Your task to perform on an android device: turn on showing notifications on the lock screen Image 0: 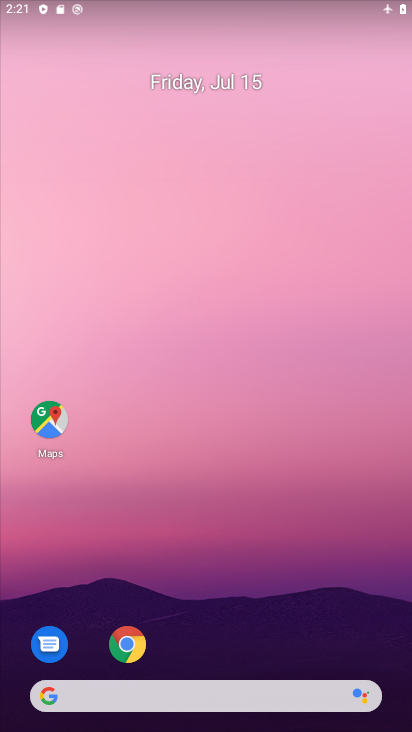
Step 0: drag from (235, 499) to (302, 28)
Your task to perform on an android device: turn on showing notifications on the lock screen Image 1: 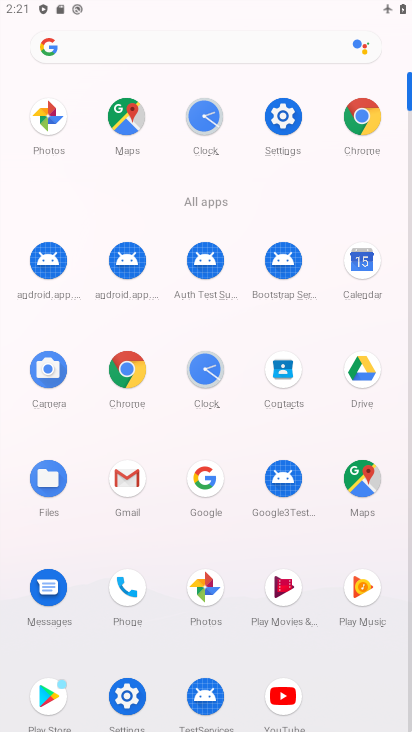
Step 1: click (273, 119)
Your task to perform on an android device: turn on showing notifications on the lock screen Image 2: 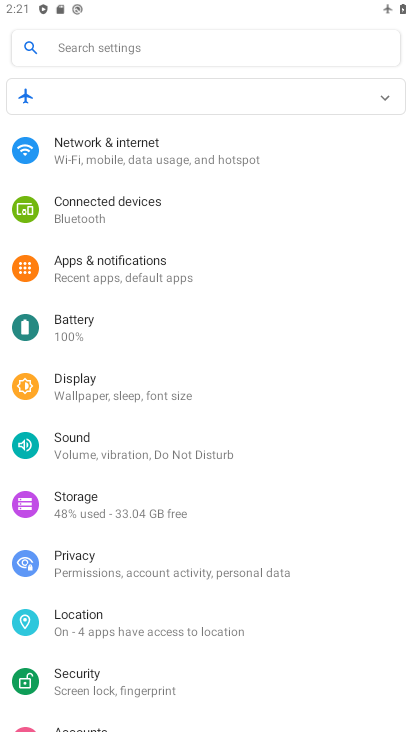
Step 2: click (196, 275)
Your task to perform on an android device: turn on showing notifications on the lock screen Image 3: 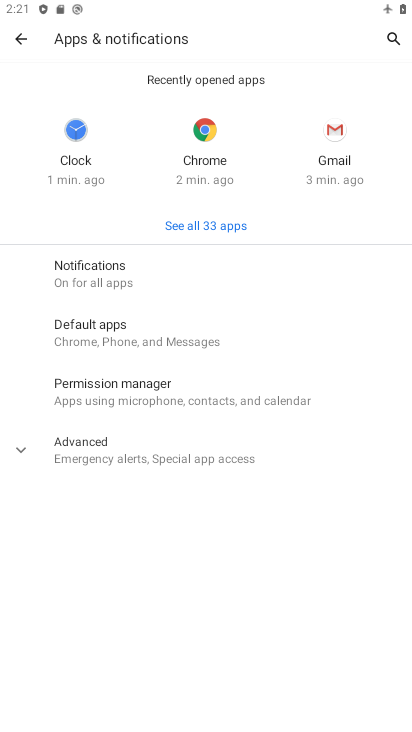
Step 3: click (166, 284)
Your task to perform on an android device: turn on showing notifications on the lock screen Image 4: 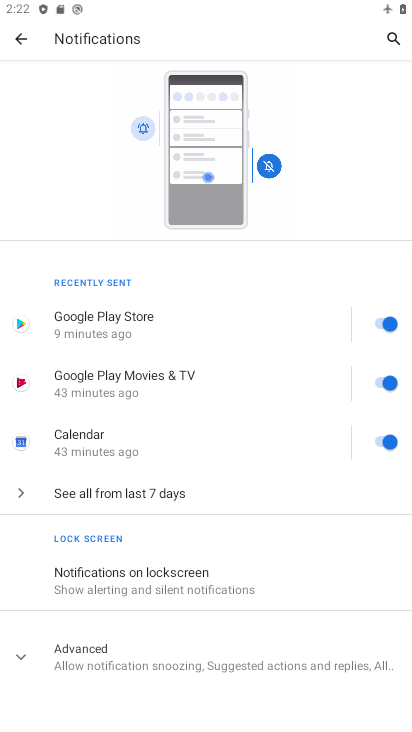
Step 4: click (165, 581)
Your task to perform on an android device: turn on showing notifications on the lock screen Image 5: 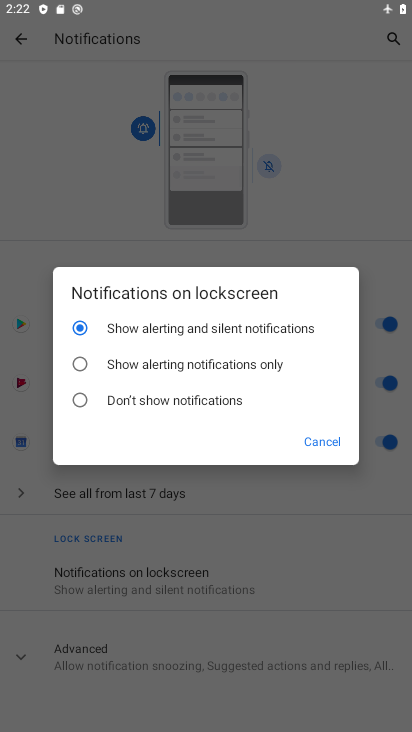
Step 5: task complete